Your task to perform on an android device: set the stopwatch Image 0: 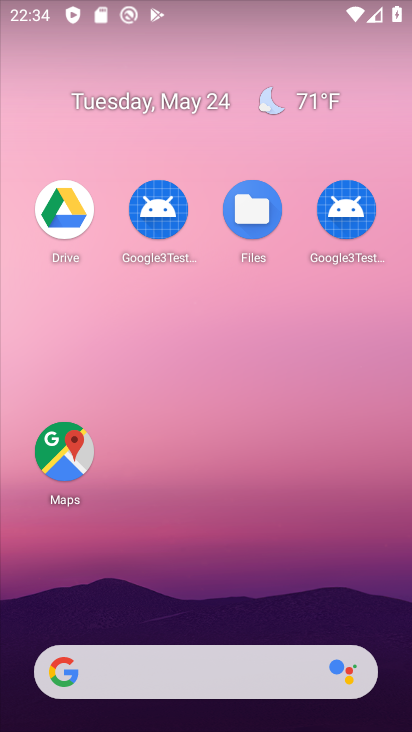
Step 0: drag from (194, 537) to (212, 91)
Your task to perform on an android device: set the stopwatch Image 1: 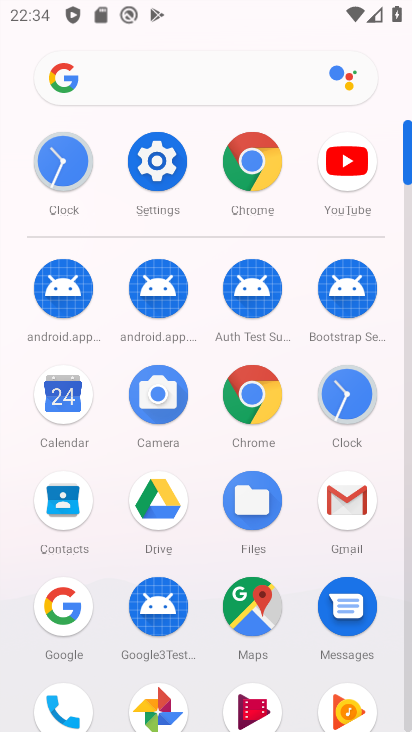
Step 1: click (336, 394)
Your task to perform on an android device: set the stopwatch Image 2: 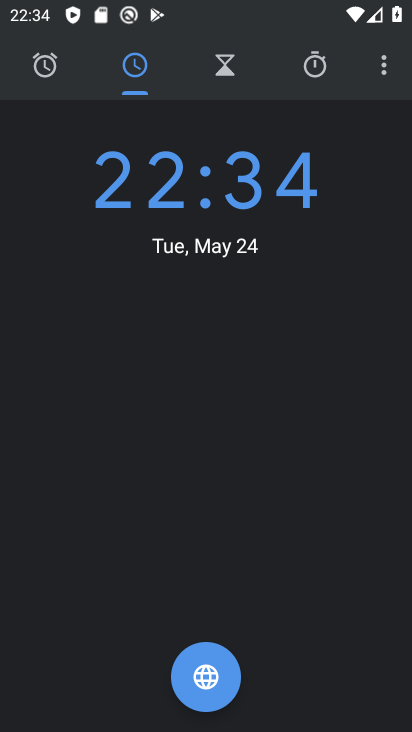
Step 2: click (379, 66)
Your task to perform on an android device: set the stopwatch Image 3: 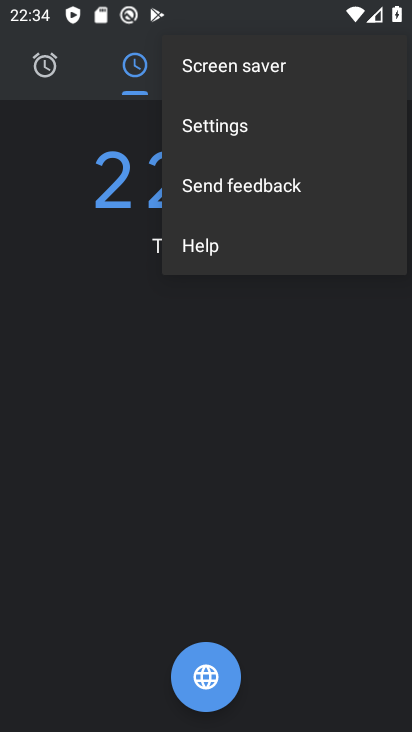
Step 3: click (295, 364)
Your task to perform on an android device: set the stopwatch Image 4: 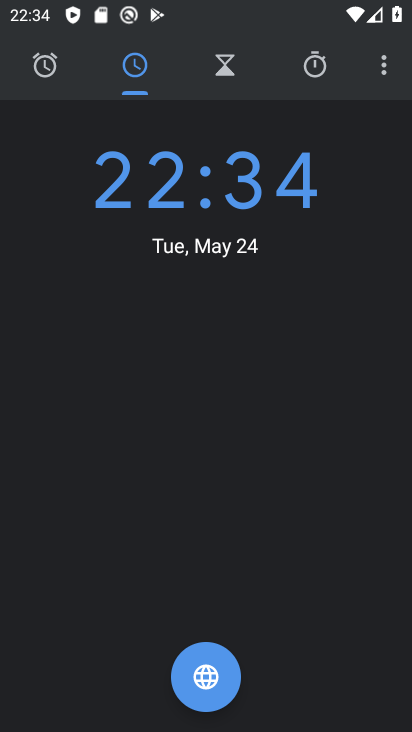
Step 4: click (303, 73)
Your task to perform on an android device: set the stopwatch Image 5: 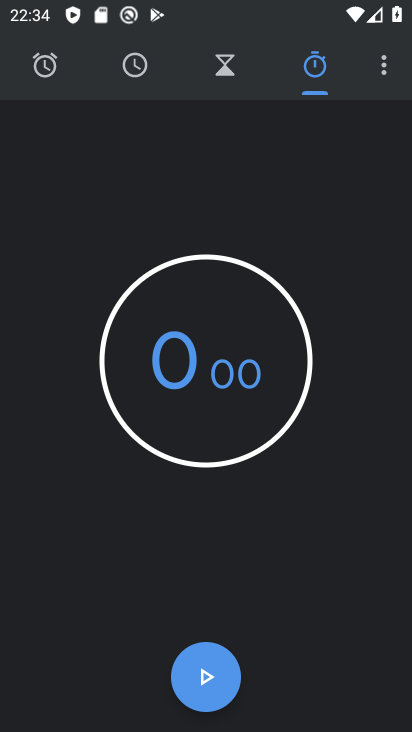
Step 5: click (218, 681)
Your task to perform on an android device: set the stopwatch Image 6: 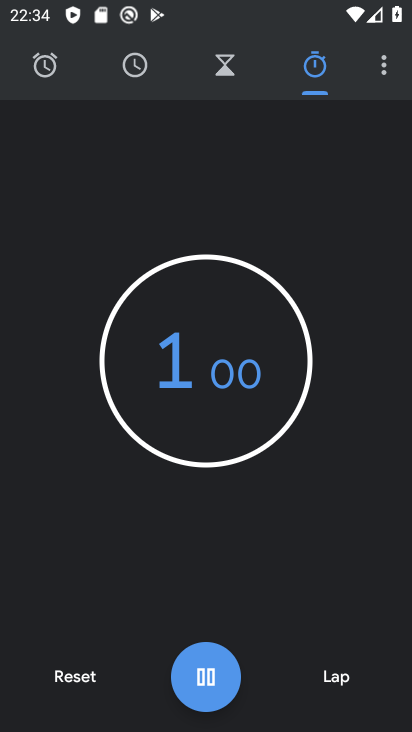
Step 6: click (218, 681)
Your task to perform on an android device: set the stopwatch Image 7: 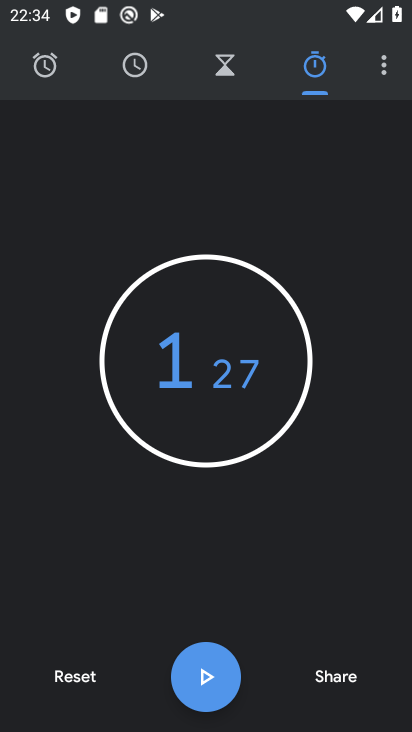
Step 7: task complete